Your task to perform on an android device: turn off airplane mode Image 0: 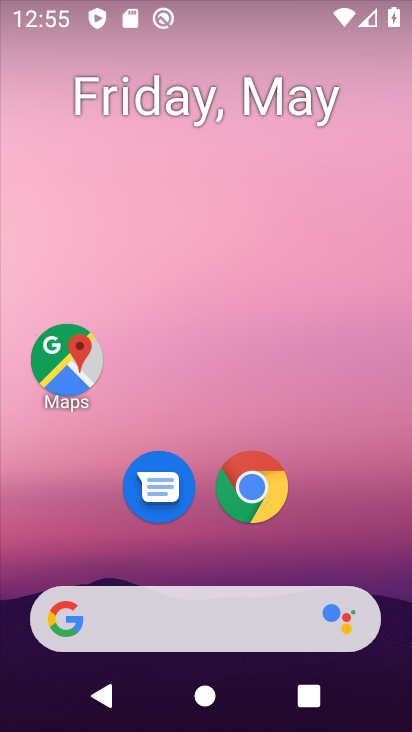
Step 0: drag from (286, 5) to (252, 493)
Your task to perform on an android device: turn off airplane mode Image 1: 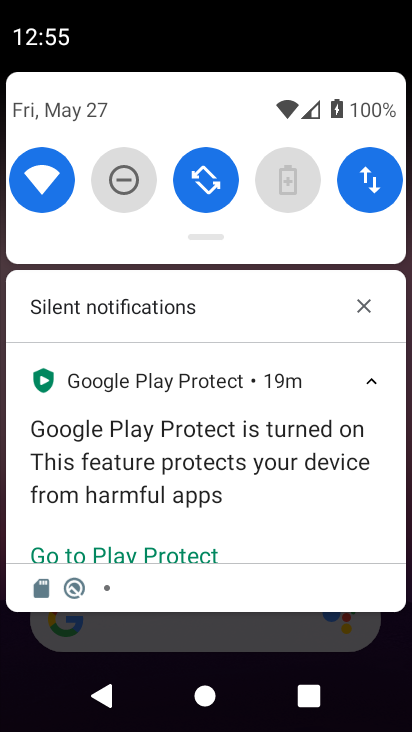
Step 1: task complete